Your task to perform on an android device: add a contact Image 0: 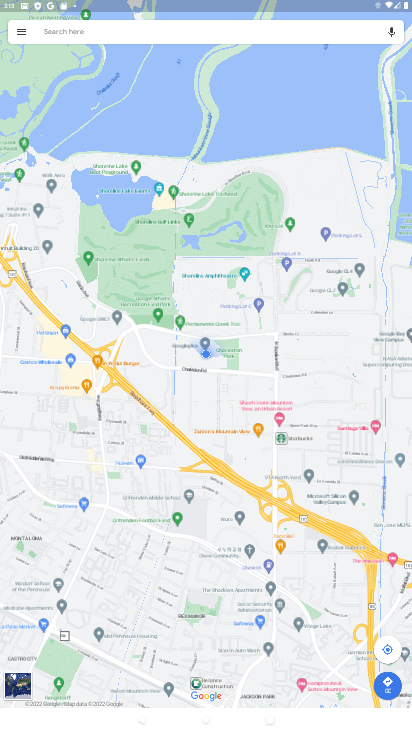
Step 0: press home button
Your task to perform on an android device: add a contact Image 1: 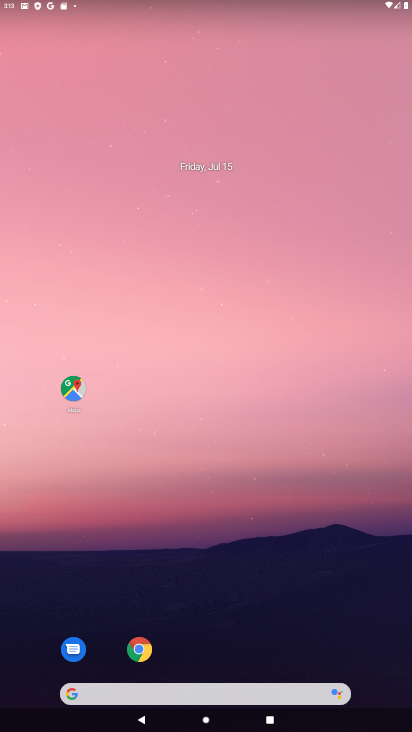
Step 1: drag from (195, 636) to (233, 144)
Your task to perform on an android device: add a contact Image 2: 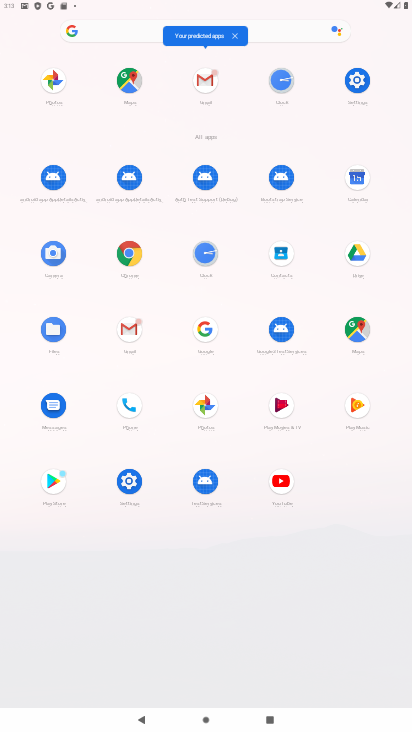
Step 2: click (269, 254)
Your task to perform on an android device: add a contact Image 3: 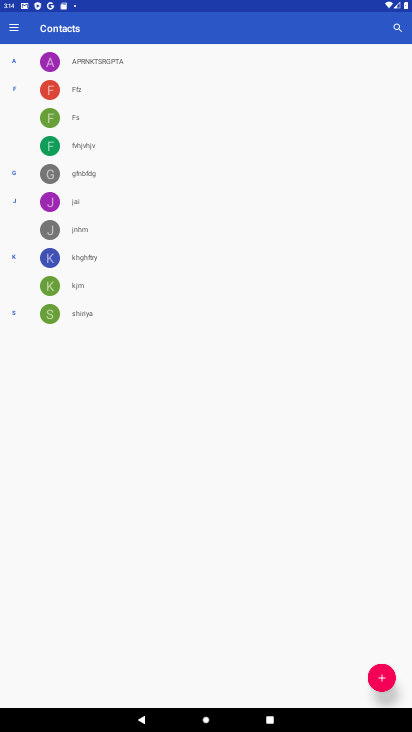
Step 3: click (377, 677)
Your task to perform on an android device: add a contact Image 4: 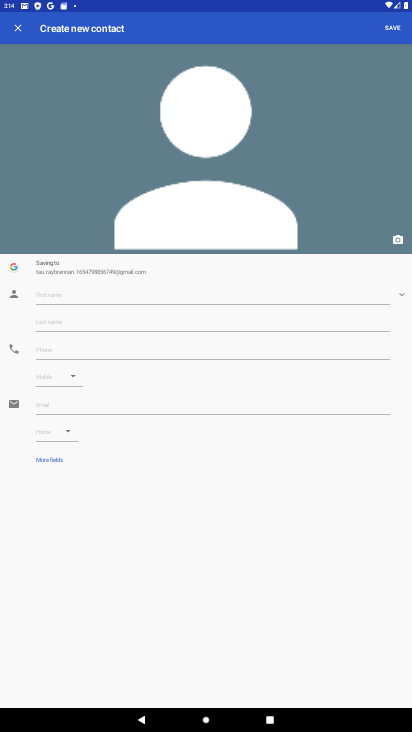
Step 4: click (86, 296)
Your task to perform on an android device: add a contact Image 5: 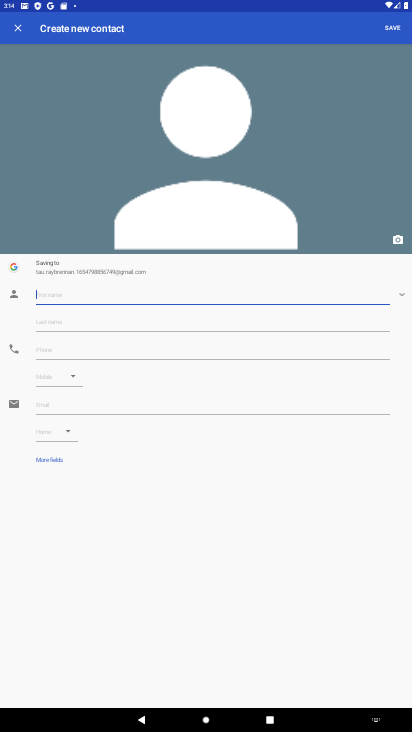
Step 5: type "fhfh"
Your task to perform on an android device: add a contact Image 6: 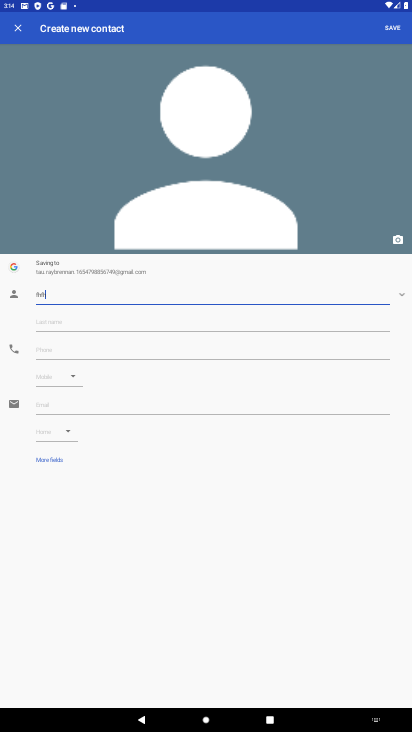
Step 6: click (87, 353)
Your task to perform on an android device: add a contact Image 7: 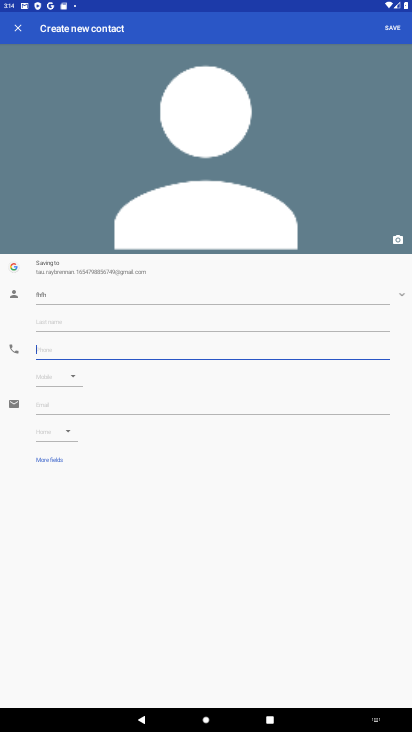
Step 7: type "86745756"
Your task to perform on an android device: add a contact Image 8: 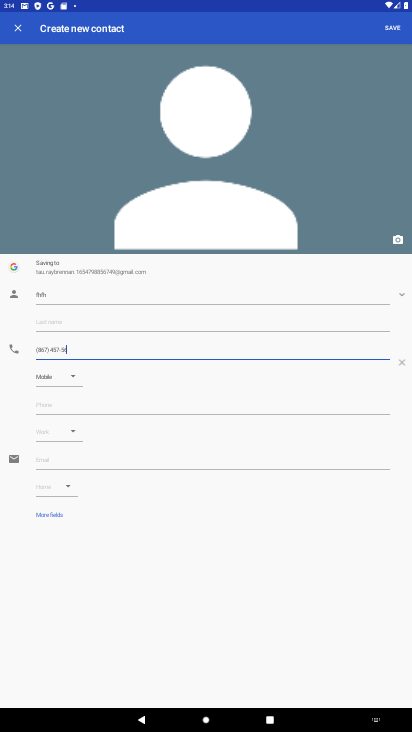
Step 8: task complete